Your task to perform on an android device: Search for Mexican restaurants on Maps Image 0: 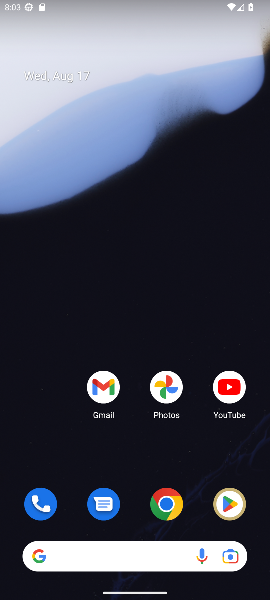
Step 0: drag from (142, 445) to (175, 119)
Your task to perform on an android device: Search for Mexican restaurants on Maps Image 1: 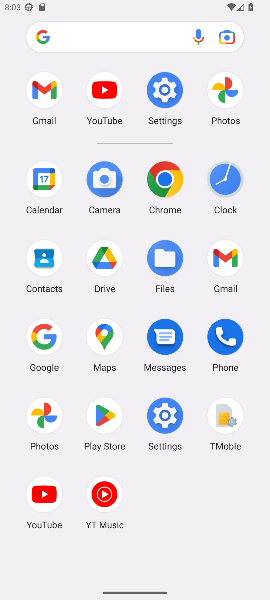
Step 1: click (107, 354)
Your task to perform on an android device: Search for Mexican restaurants on Maps Image 2: 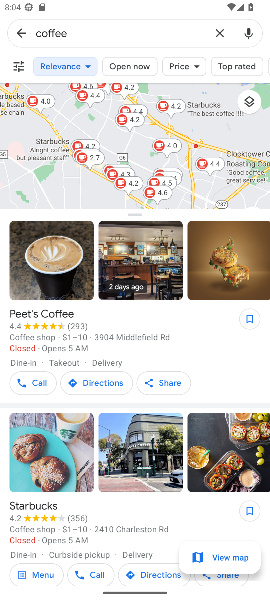
Step 2: click (210, 34)
Your task to perform on an android device: Search for Mexican restaurants on Maps Image 3: 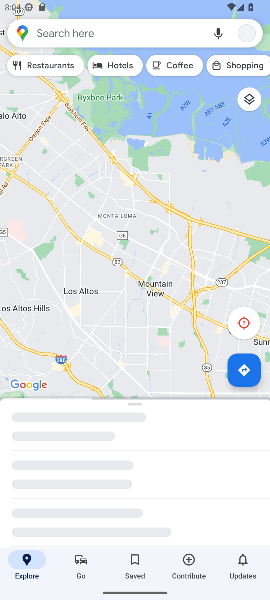
Step 3: click (177, 40)
Your task to perform on an android device: Search for Mexican restaurants on Maps Image 4: 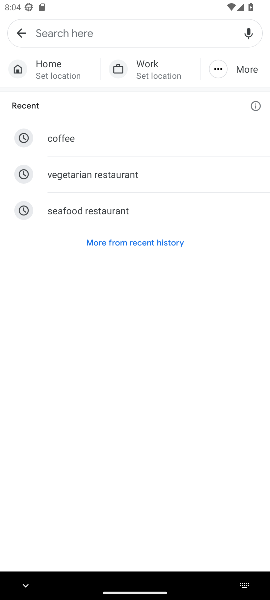
Step 4: type "Mexican restaurants "
Your task to perform on an android device: Search for Mexican restaurants on Maps Image 5: 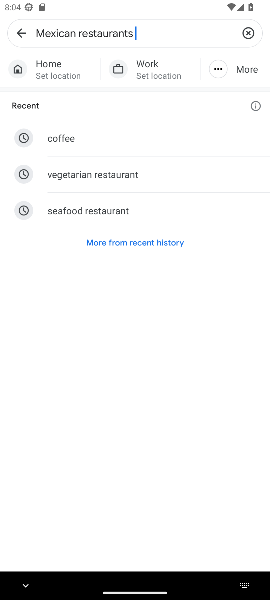
Step 5: type ""
Your task to perform on an android device: Search for Mexican restaurants on Maps Image 6: 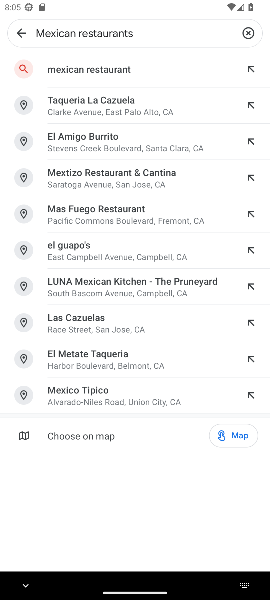
Step 6: click (143, 68)
Your task to perform on an android device: Search for Mexican restaurants on Maps Image 7: 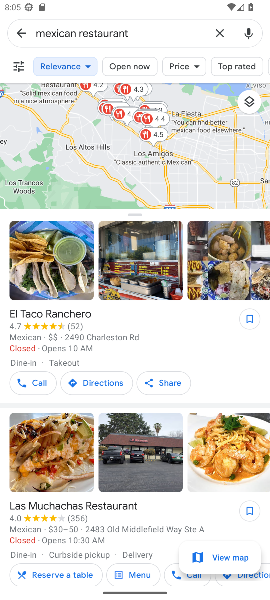
Step 7: task complete